Your task to perform on an android device: Check the news Image 0: 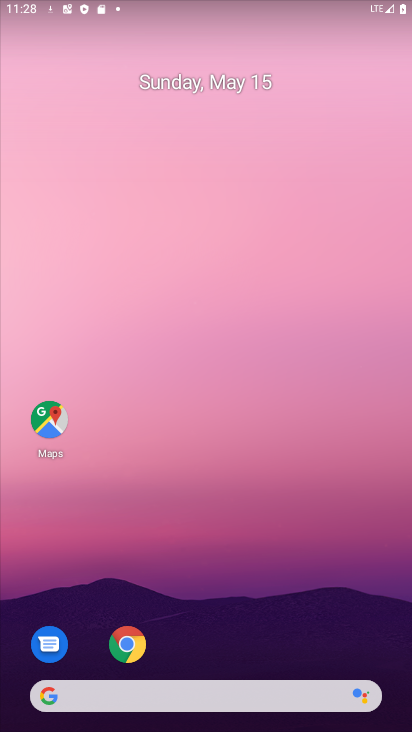
Step 0: drag from (250, 720) to (267, 234)
Your task to perform on an android device: Check the news Image 1: 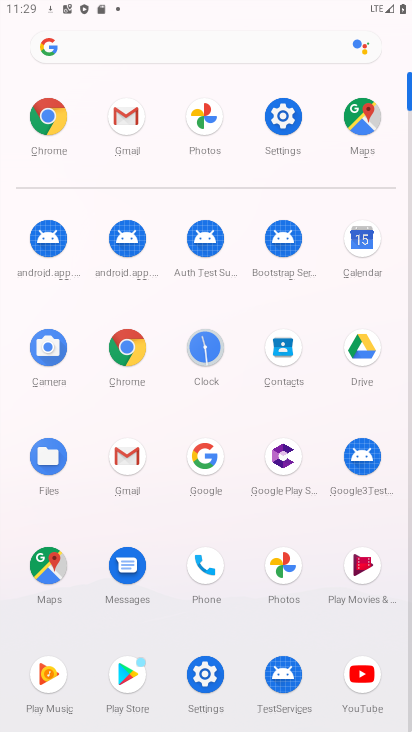
Step 1: click (127, 46)
Your task to perform on an android device: Check the news Image 2: 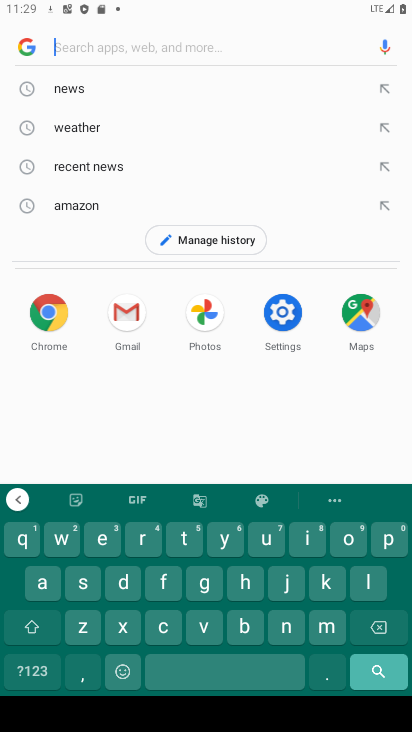
Step 2: click (81, 91)
Your task to perform on an android device: Check the news Image 3: 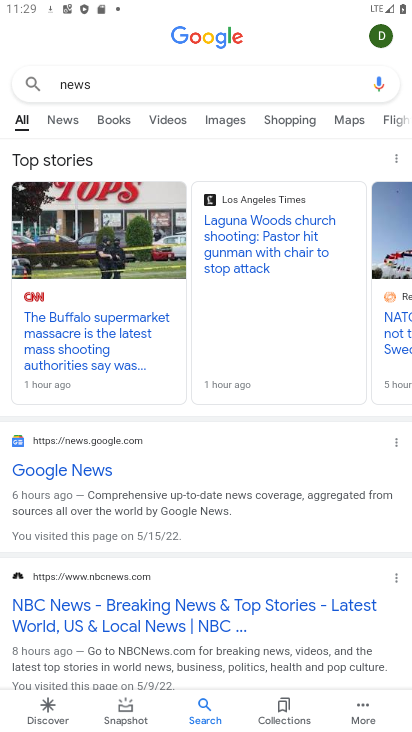
Step 3: task complete